Your task to perform on an android device: Open Wikipedia Image 0: 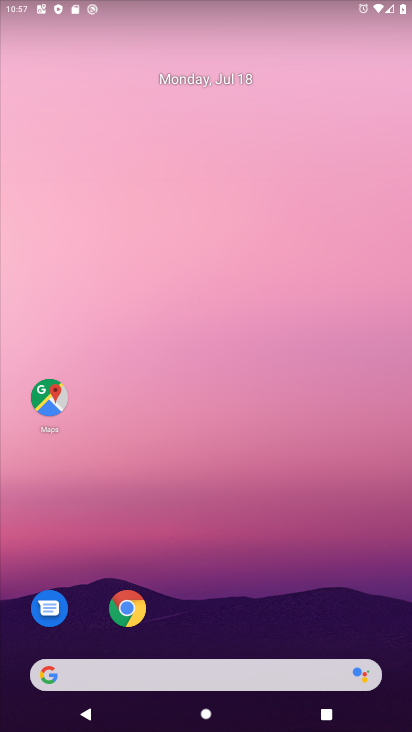
Step 0: click (126, 609)
Your task to perform on an android device: Open Wikipedia Image 1: 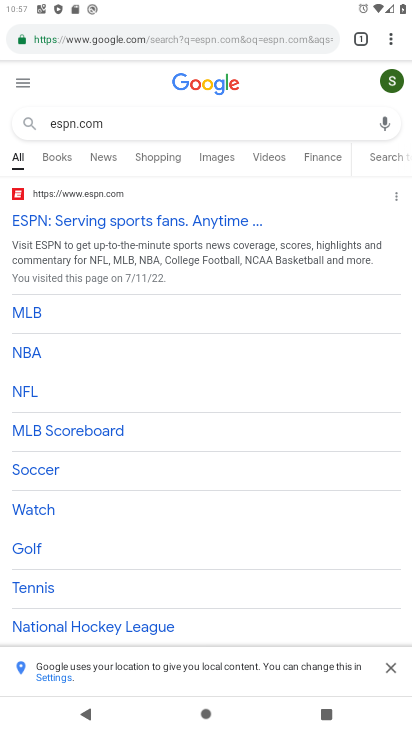
Step 1: click (144, 33)
Your task to perform on an android device: Open Wikipedia Image 2: 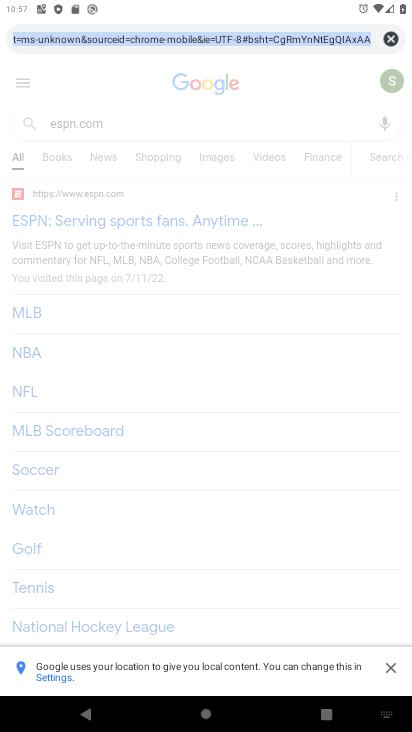
Step 2: click (391, 37)
Your task to perform on an android device: Open Wikipedia Image 3: 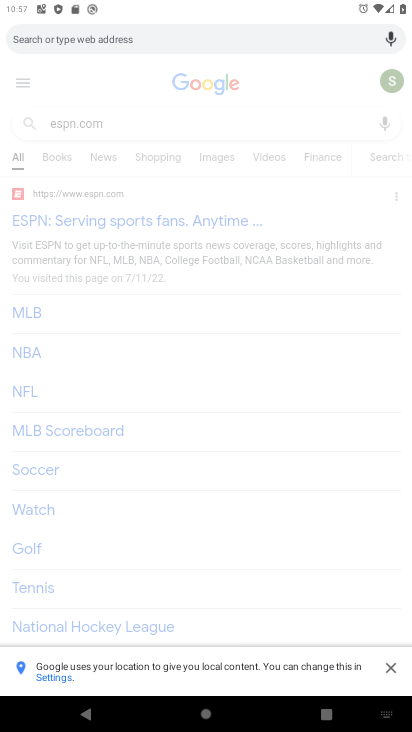
Step 3: type "wikipedia"
Your task to perform on an android device: Open Wikipedia Image 4: 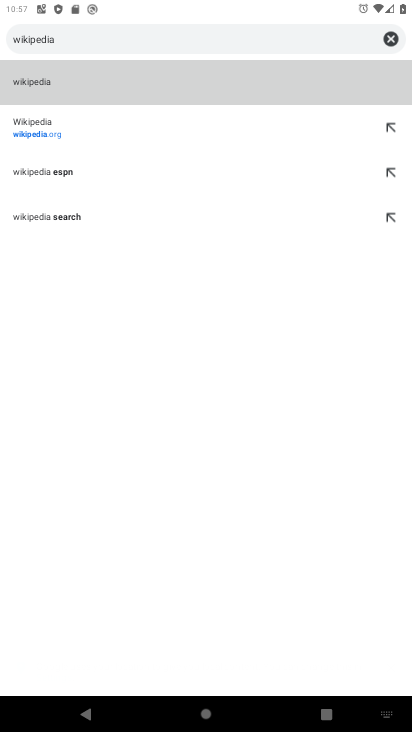
Step 4: click (53, 126)
Your task to perform on an android device: Open Wikipedia Image 5: 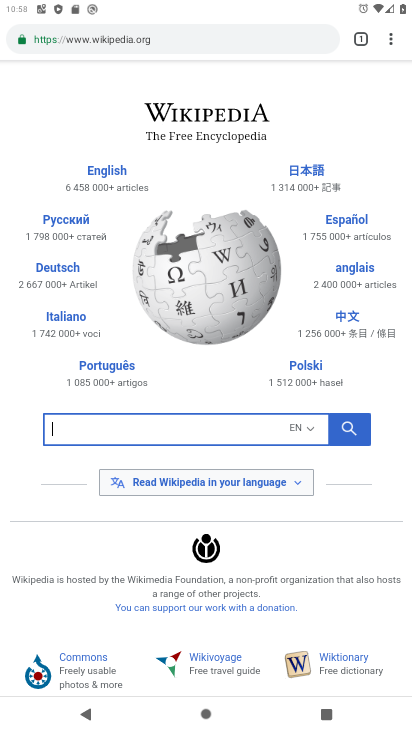
Step 5: task complete